Your task to perform on an android device: toggle pop-ups in chrome Image 0: 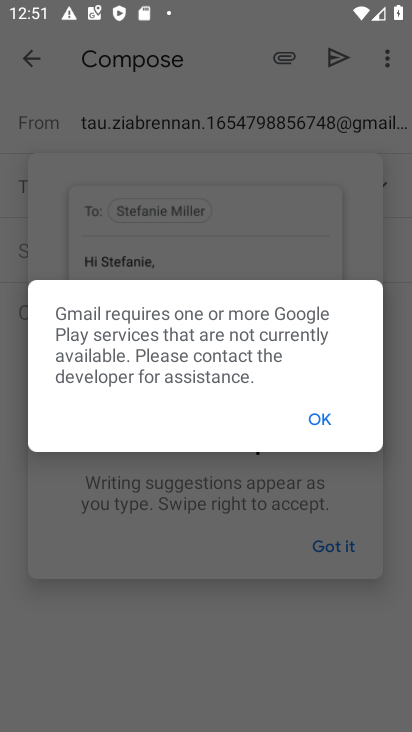
Step 0: press home button
Your task to perform on an android device: toggle pop-ups in chrome Image 1: 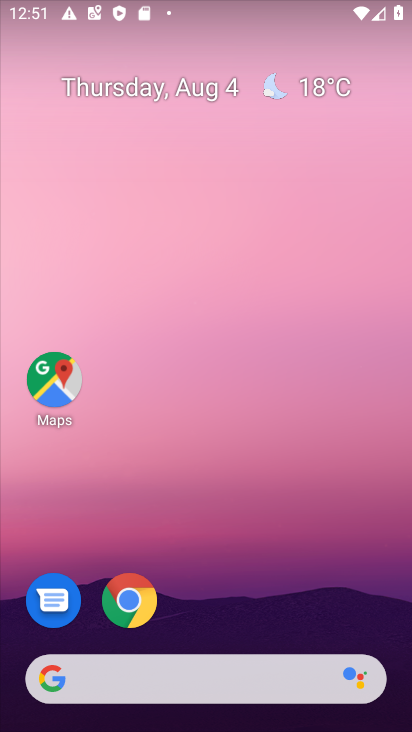
Step 1: click (131, 603)
Your task to perform on an android device: toggle pop-ups in chrome Image 2: 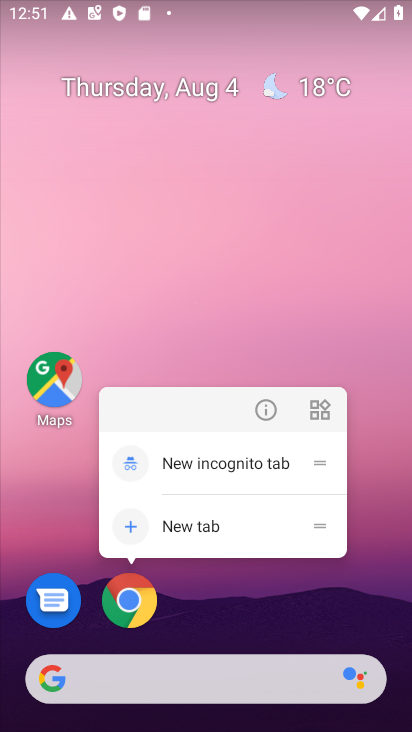
Step 2: click (131, 604)
Your task to perform on an android device: toggle pop-ups in chrome Image 3: 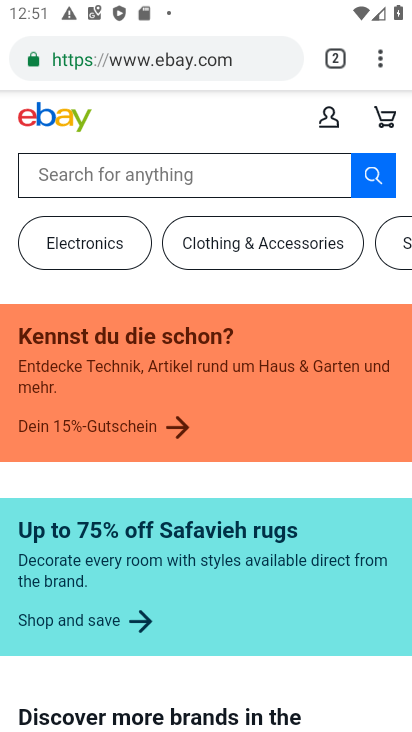
Step 3: drag from (380, 61) to (299, 632)
Your task to perform on an android device: toggle pop-ups in chrome Image 4: 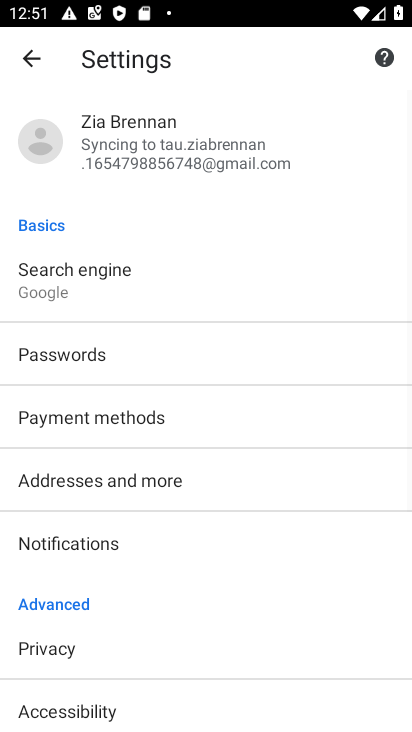
Step 4: drag from (185, 650) to (239, 251)
Your task to perform on an android device: toggle pop-ups in chrome Image 5: 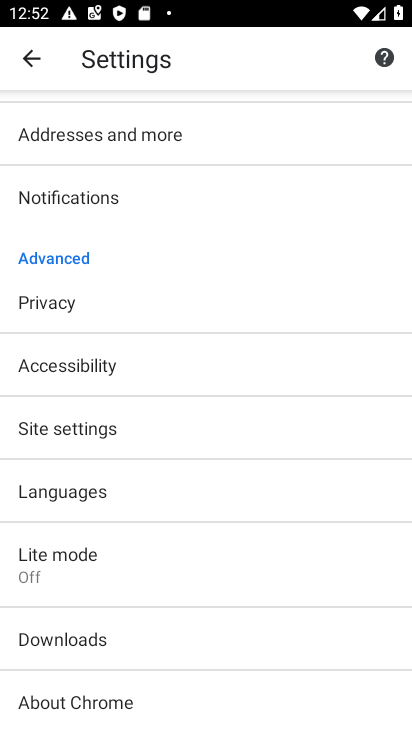
Step 5: click (111, 432)
Your task to perform on an android device: toggle pop-ups in chrome Image 6: 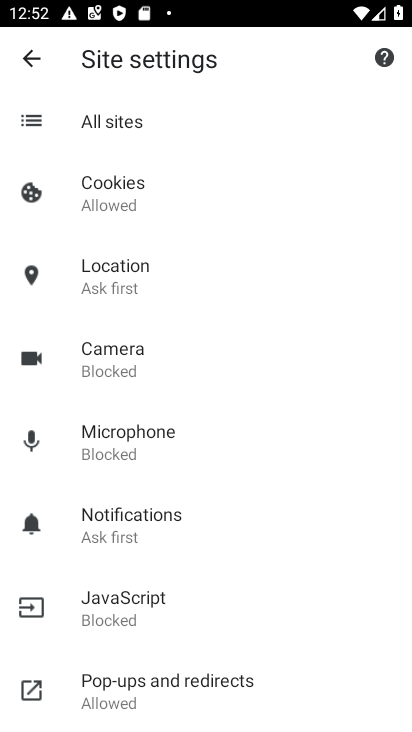
Step 6: drag from (179, 632) to (312, 232)
Your task to perform on an android device: toggle pop-ups in chrome Image 7: 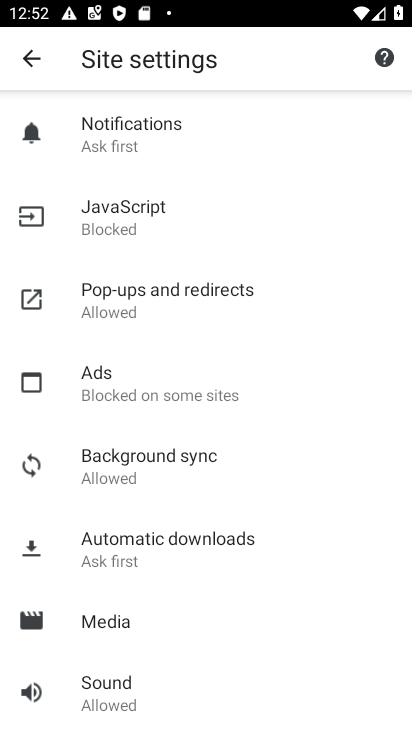
Step 7: click (147, 301)
Your task to perform on an android device: toggle pop-ups in chrome Image 8: 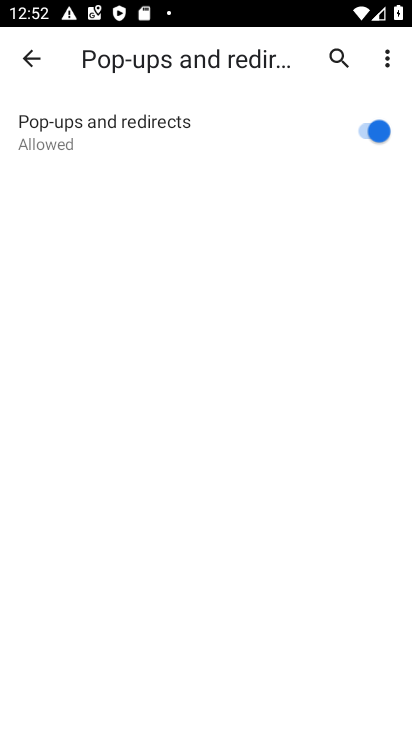
Step 8: click (368, 131)
Your task to perform on an android device: toggle pop-ups in chrome Image 9: 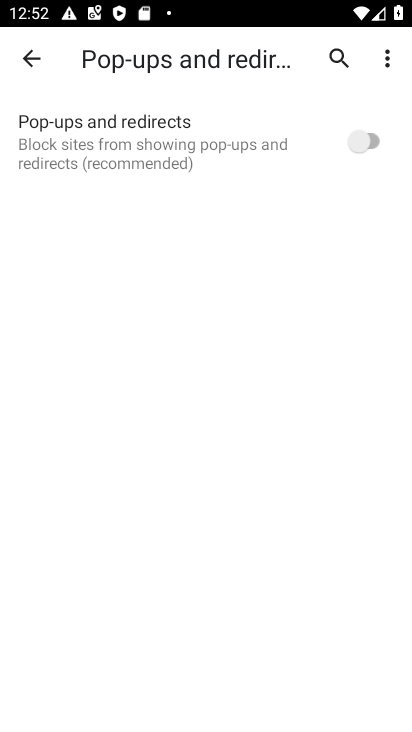
Step 9: task complete